Your task to perform on an android device: Go to eBay Image 0: 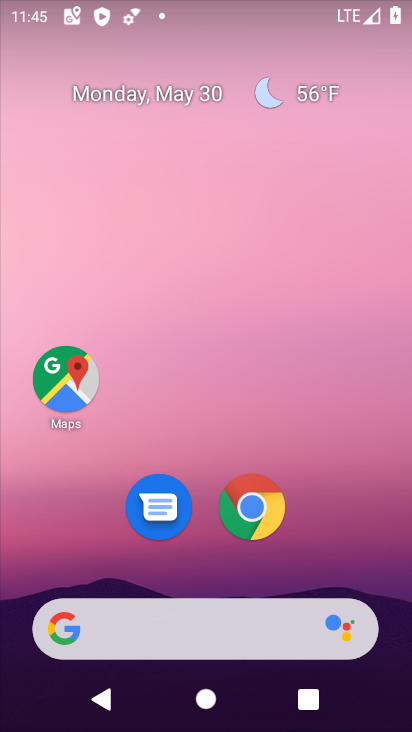
Step 0: click (212, 626)
Your task to perform on an android device: Go to eBay Image 1: 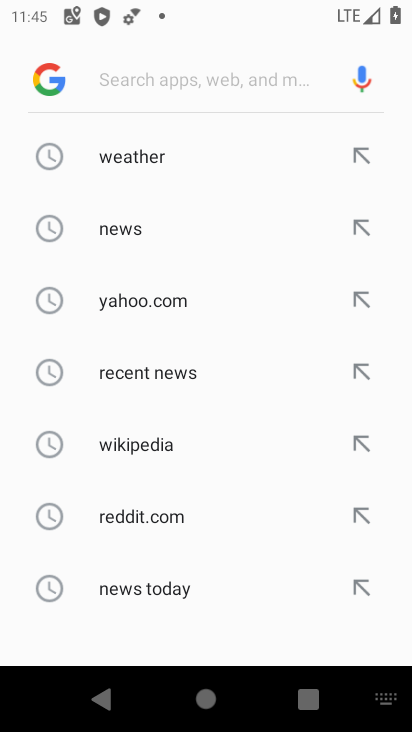
Step 1: type "eBay"
Your task to perform on an android device: Go to eBay Image 2: 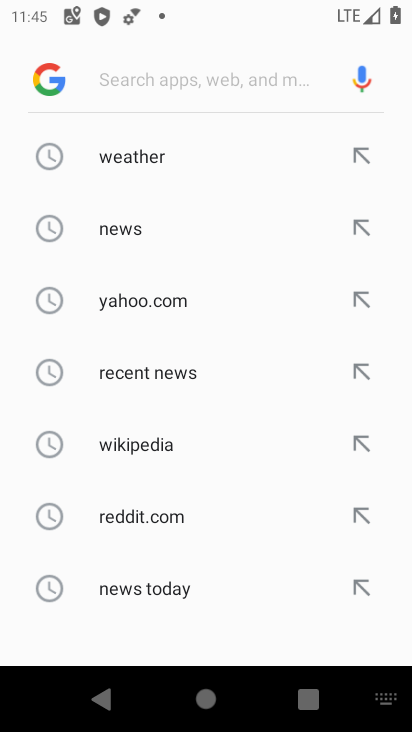
Step 2: click (190, 84)
Your task to perform on an android device: Go to eBay Image 3: 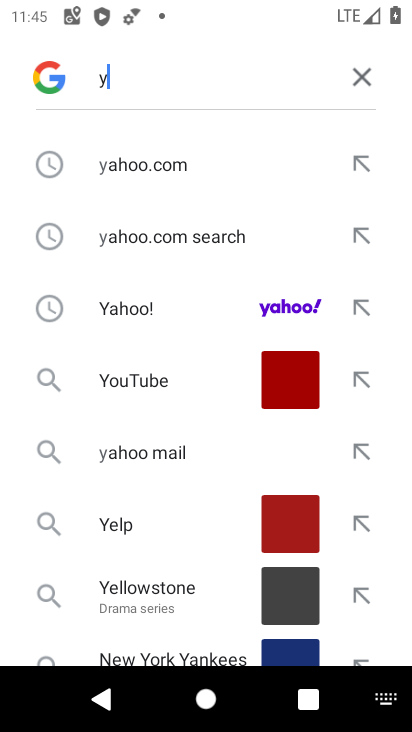
Step 3: type "eBay"
Your task to perform on an android device: Go to eBay Image 4: 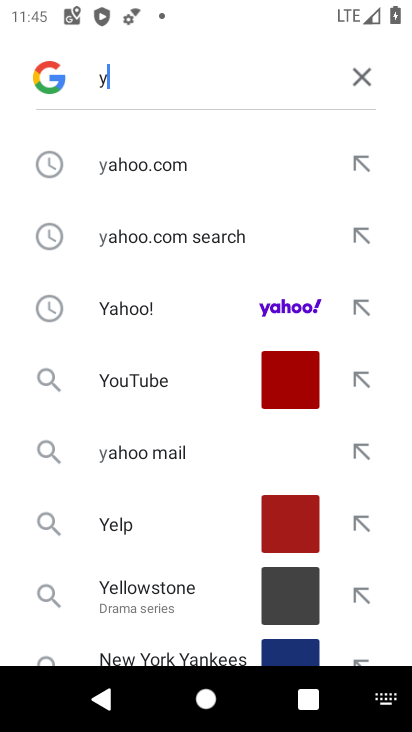
Step 4: click (232, 82)
Your task to perform on an android device: Go to eBay Image 5: 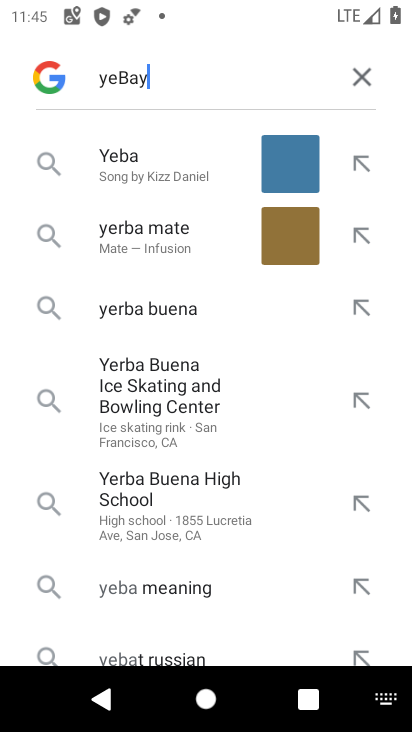
Step 5: click (232, 79)
Your task to perform on an android device: Go to eBay Image 6: 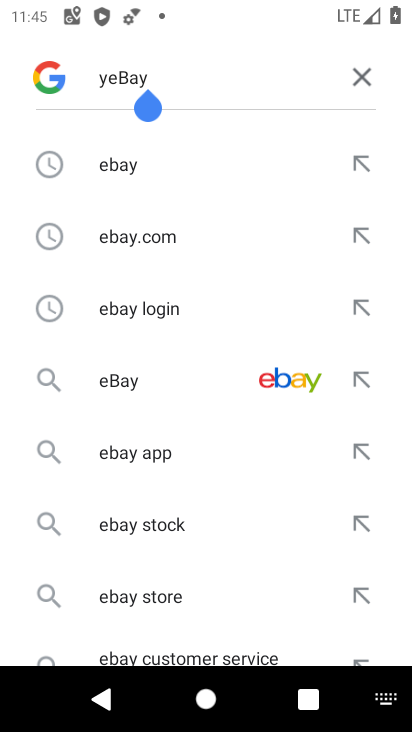
Step 6: click (143, 377)
Your task to perform on an android device: Go to eBay Image 7: 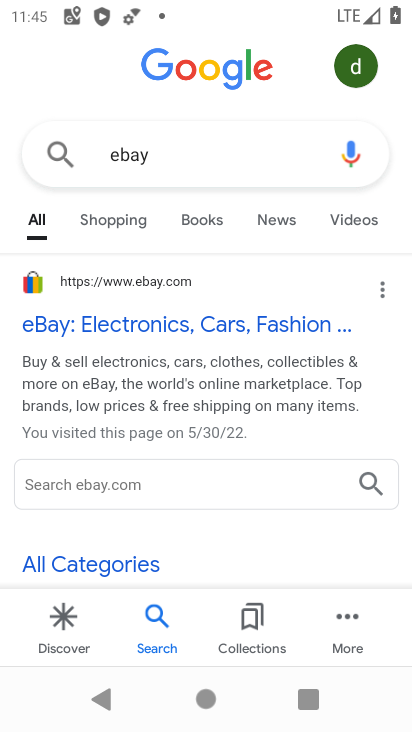
Step 7: click (171, 328)
Your task to perform on an android device: Go to eBay Image 8: 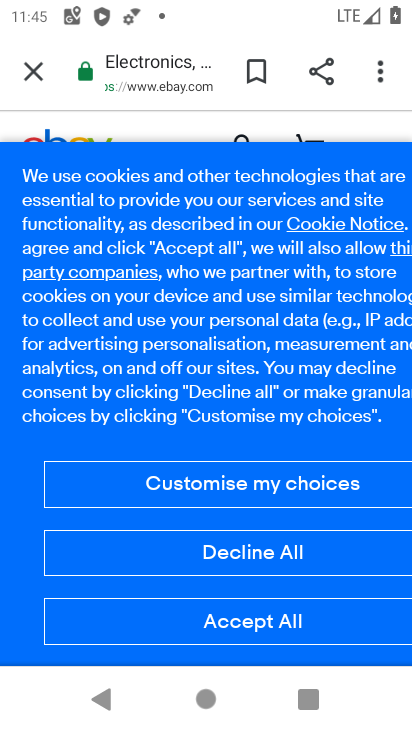
Step 8: task complete